Your task to perform on an android device: turn pop-ups off in chrome Image 0: 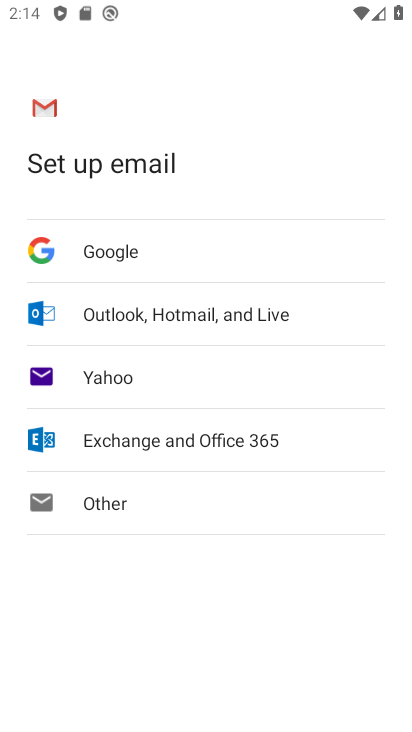
Step 0: press home button
Your task to perform on an android device: turn pop-ups off in chrome Image 1: 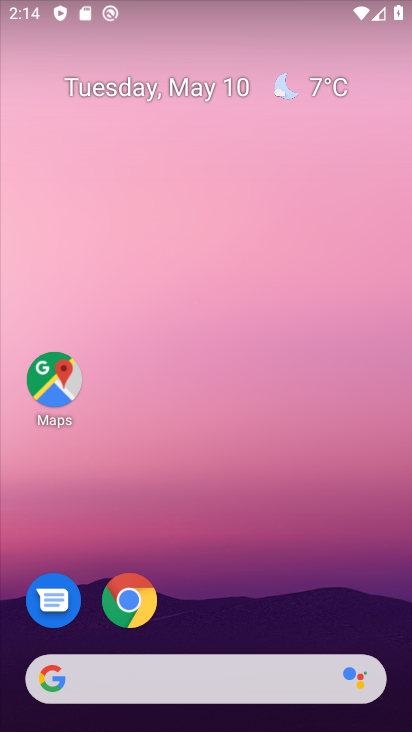
Step 1: click (132, 614)
Your task to perform on an android device: turn pop-ups off in chrome Image 2: 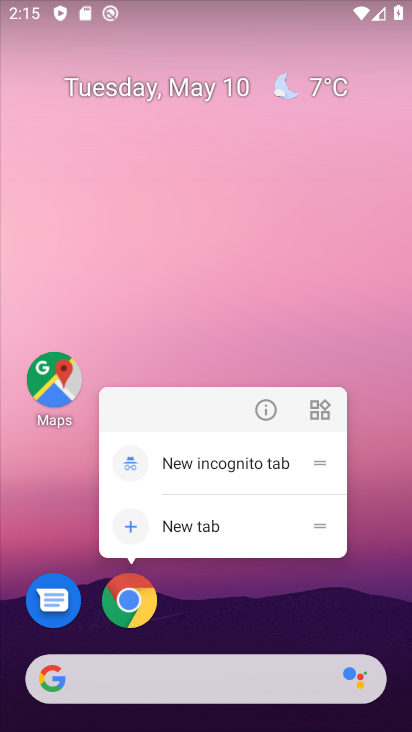
Step 2: click (132, 614)
Your task to perform on an android device: turn pop-ups off in chrome Image 3: 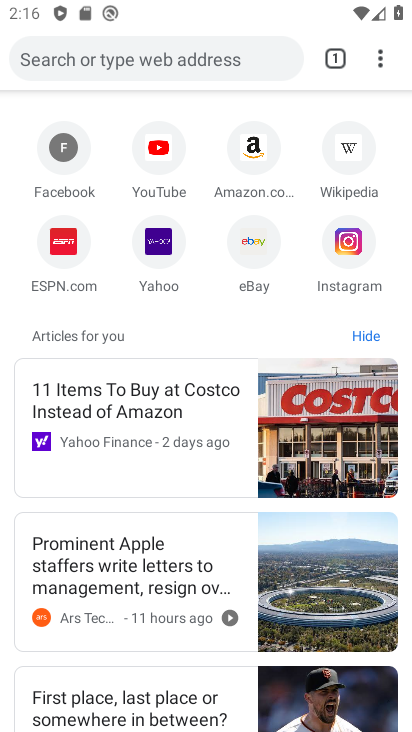
Step 3: click (381, 72)
Your task to perform on an android device: turn pop-ups off in chrome Image 4: 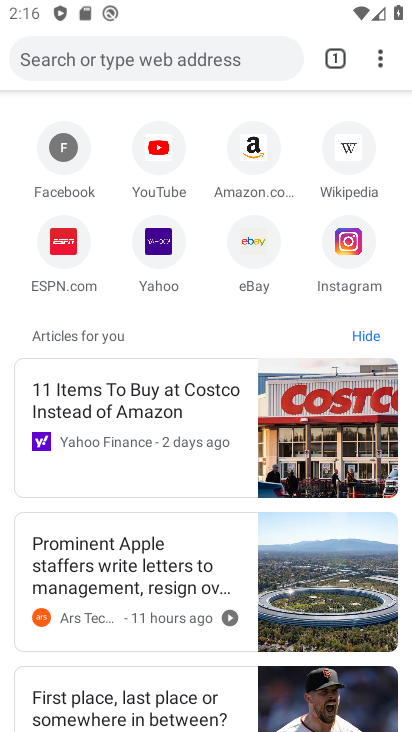
Step 4: click (382, 56)
Your task to perform on an android device: turn pop-ups off in chrome Image 5: 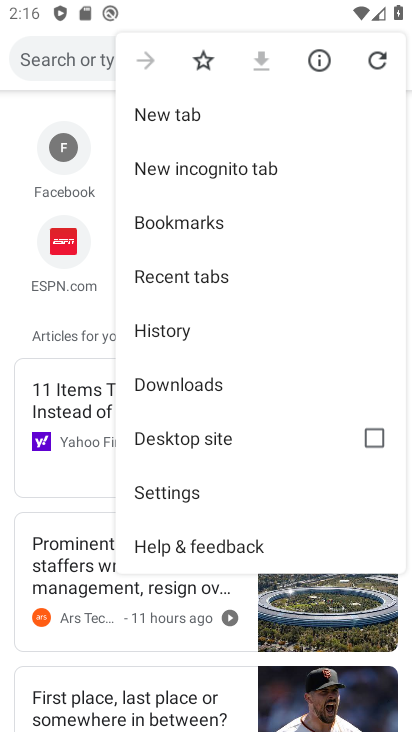
Step 5: click (202, 489)
Your task to perform on an android device: turn pop-ups off in chrome Image 6: 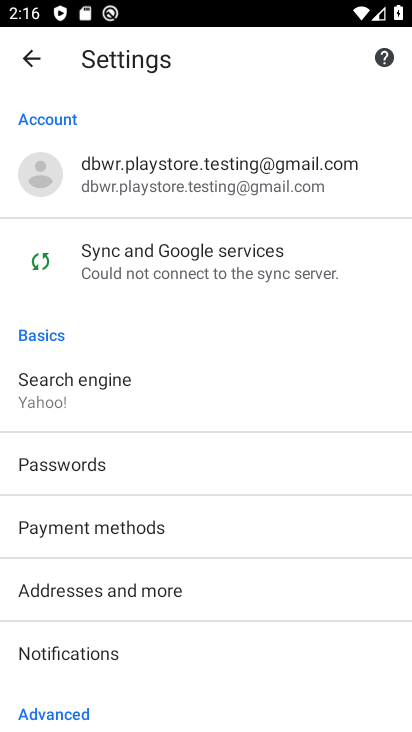
Step 6: drag from (138, 648) to (147, 250)
Your task to perform on an android device: turn pop-ups off in chrome Image 7: 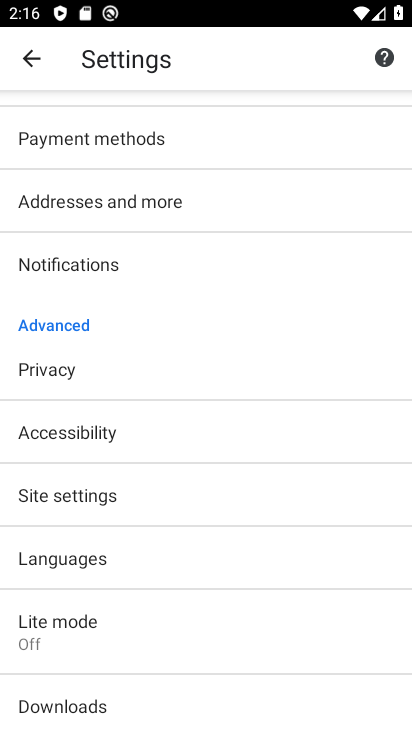
Step 7: click (96, 492)
Your task to perform on an android device: turn pop-ups off in chrome Image 8: 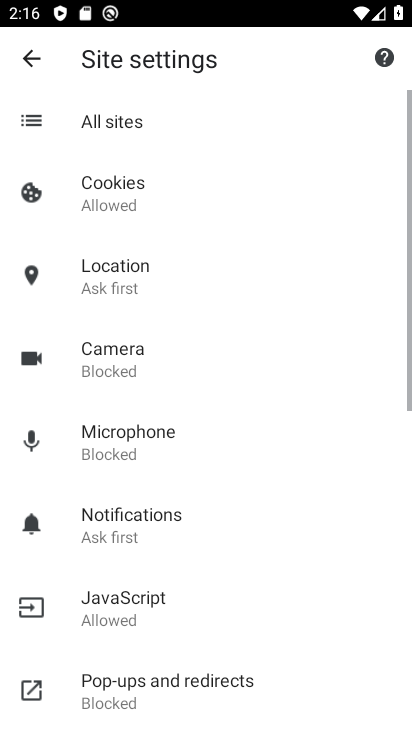
Step 8: drag from (166, 582) to (192, 320)
Your task to perform on an android device: turn pop-ups off in chrome Image 9: 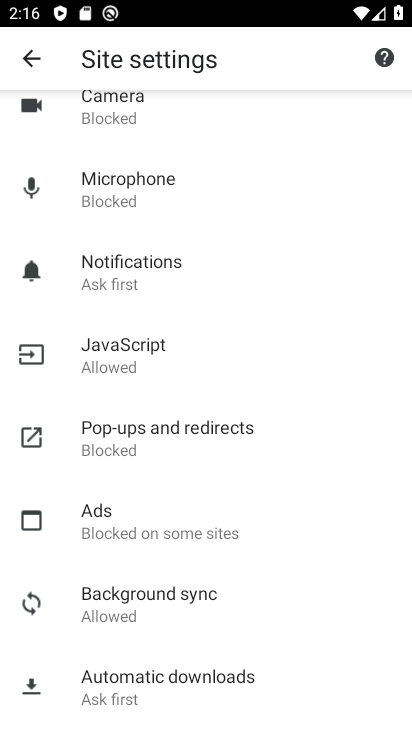
Step 9: click (167, 422)
Your task to perform on an android device: turn pop-ups off in chrome Image 10: 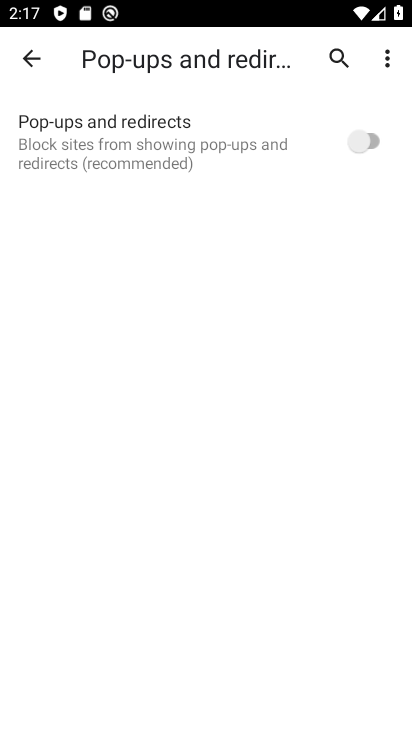
Step 10: task complete